Your task to perform on an android device: Find coffee shops on Maps Image 0: 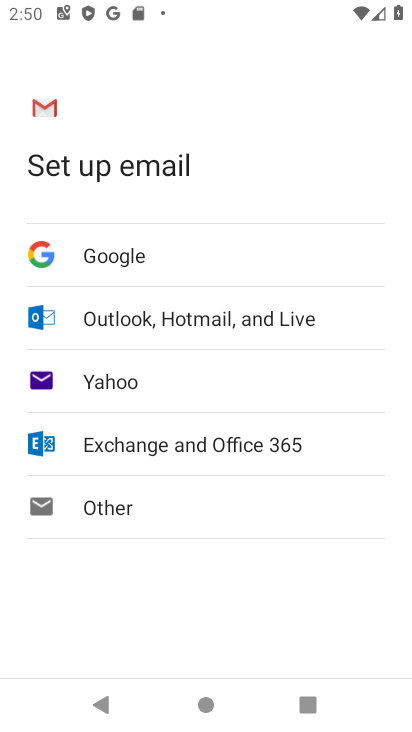
Step 0: press home button
Your task to perform on an android device: Find coffee shops on Maps Image 1: 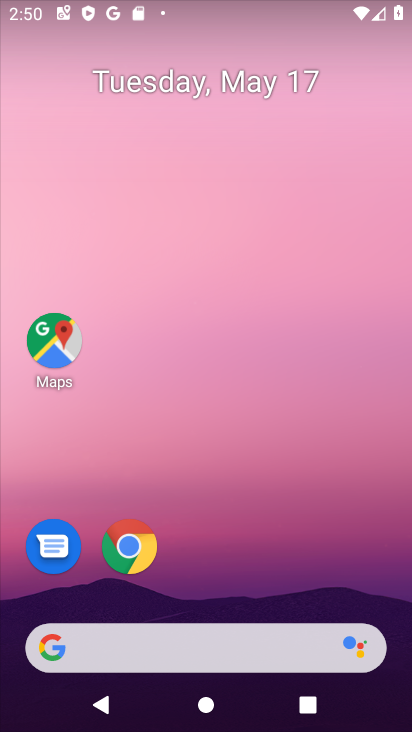
Step 1: click (65, 341)
Your task to perform on an android device: Find coffee shops on Maps Image 2: 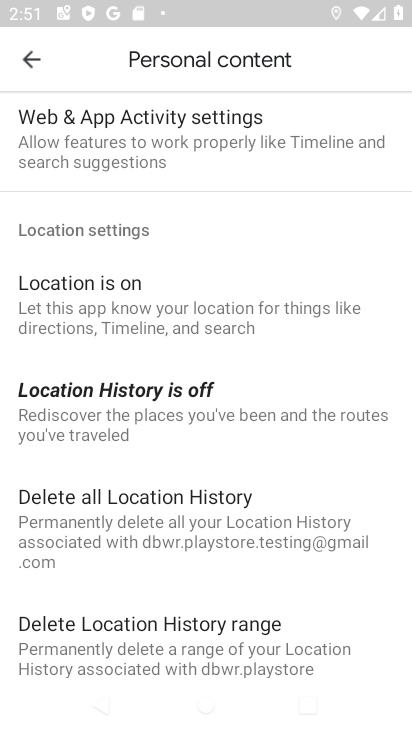
Step 2: drag from (299, 664) to (285, 495)
Your task to perform on an android device: Find coffee shops on Maps Image 3: 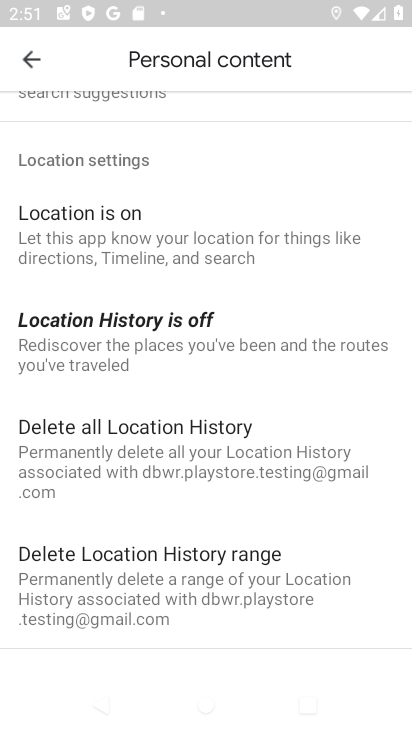
Step 3: click (36, 55)
Your task to perform on an android device: Find coffee shops on Maps Image 4: 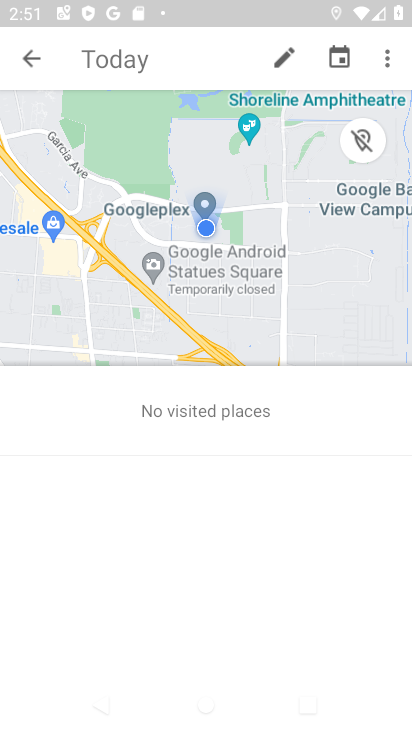
Step 4: click (25, 66)
Your task to perform on an android device: Find coffee shops on Maps Image 5: 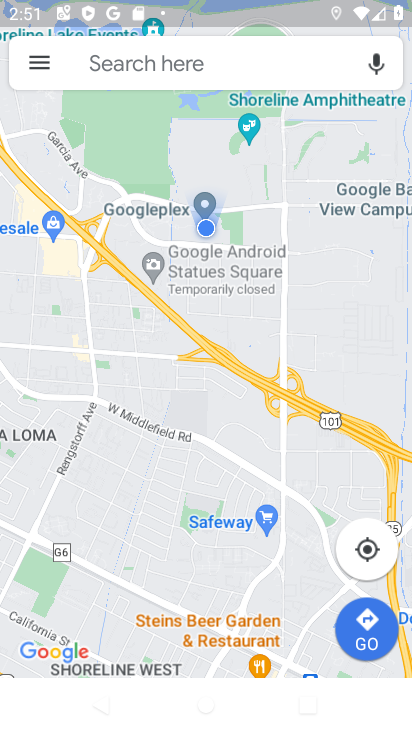
Step 5: click (116, 64)
Your task to perform on an android device: Find coffee shops on Maps Image 6: 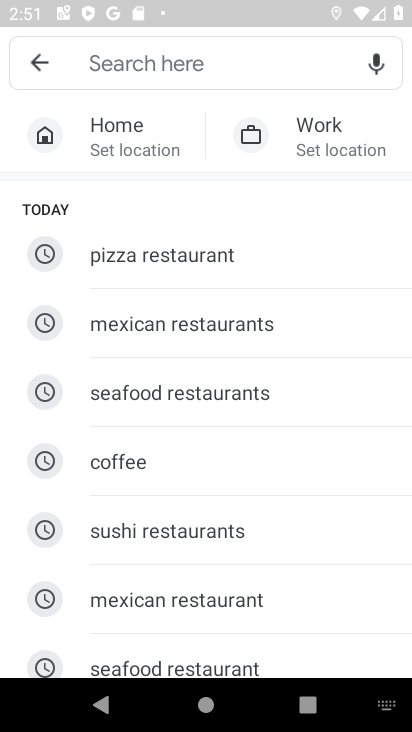
Step 6: type "shops on Maps"
Your task to perform on an android device: Find coffee shops on Maps Image 7: 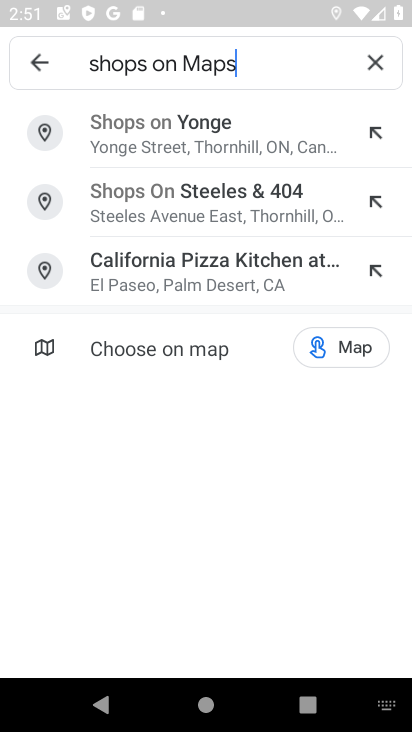
Step 7: drag from (143, 129) to (113, 223)
Your task to perform on an android device: Find coffee shops on Maps Image 8: 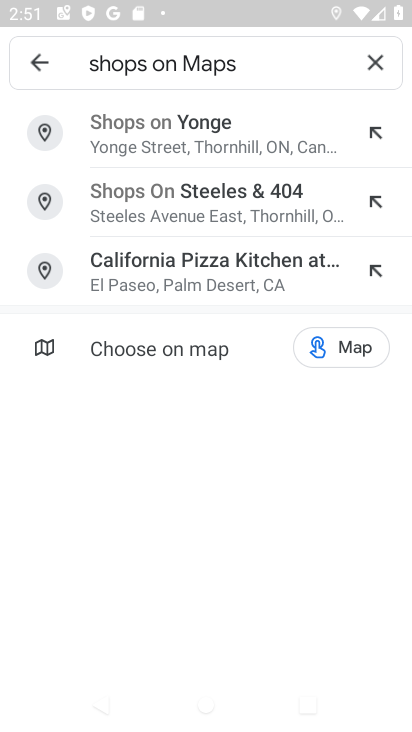
Step 8: click (247, 88)
Your task to perform on an android device: Find coffee shops on Maps Image 9: 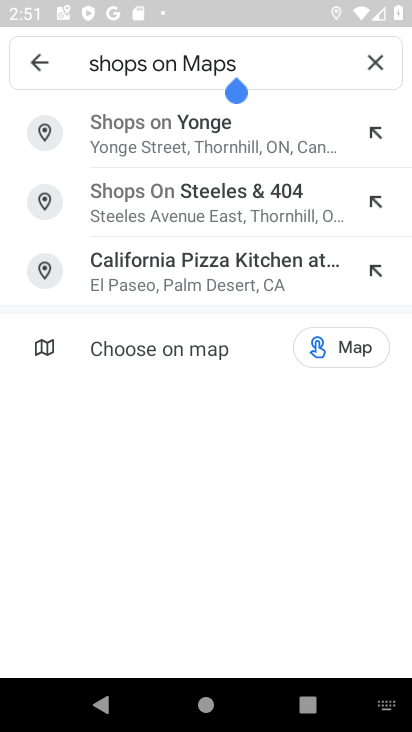
Step 9: click (378, 61)
Your task to perform on an android device: Find coffee shops on Maps Image 10: 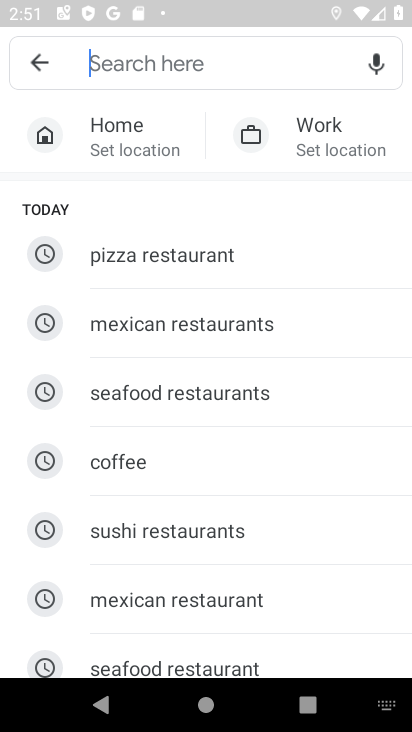
Step 10: type "coffee"
Your task to perform on an android device: Find coffee shops on Maps Image 11: 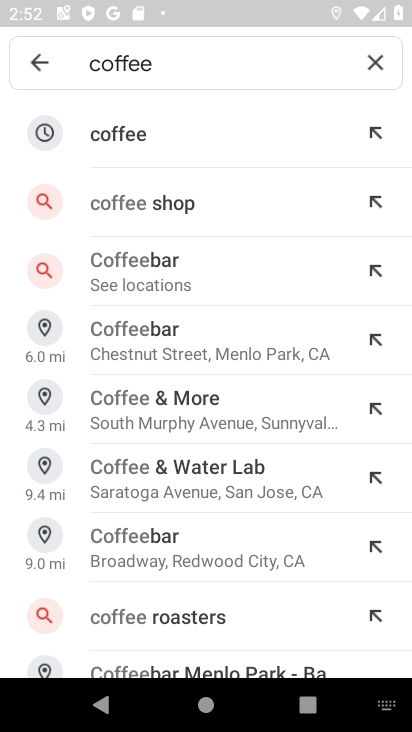
Step 11: click (114, 198)
Your task to perform on an android device: Find coffee shops on Maps Image 12: 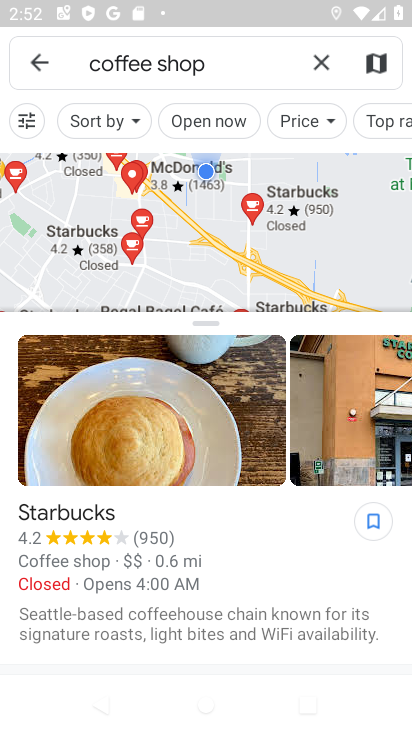
Step 12: task complete